Your task to perform on an android device: Open Reddit.com Image 0: 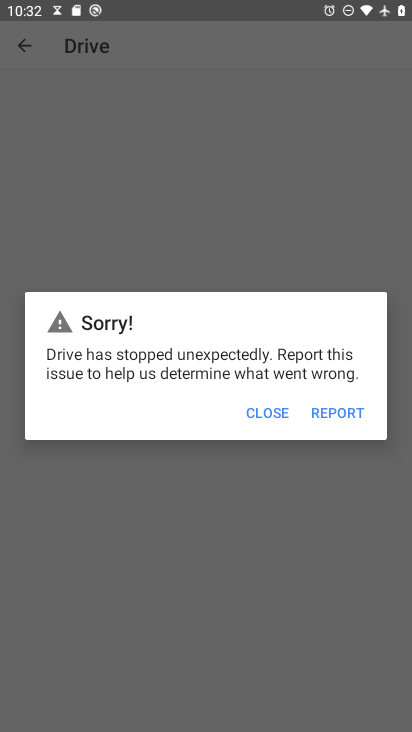
Step 0: press home button
Your task to perform on an android device: Open Reddit.com Image 1: 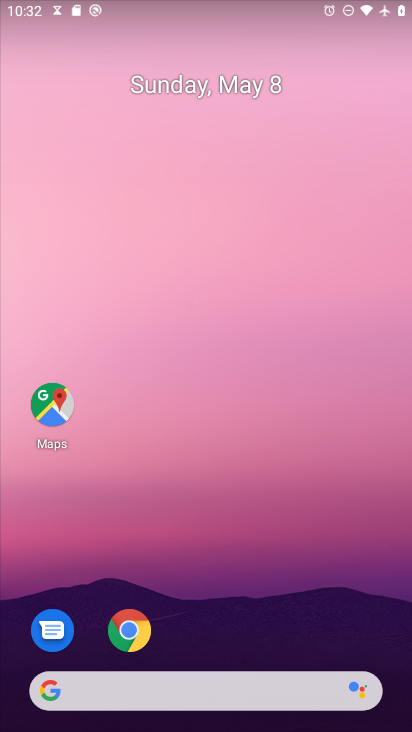
Step 1: click (134, 634)
Your task to perform on an android device: Open Reddit.com Image 2: 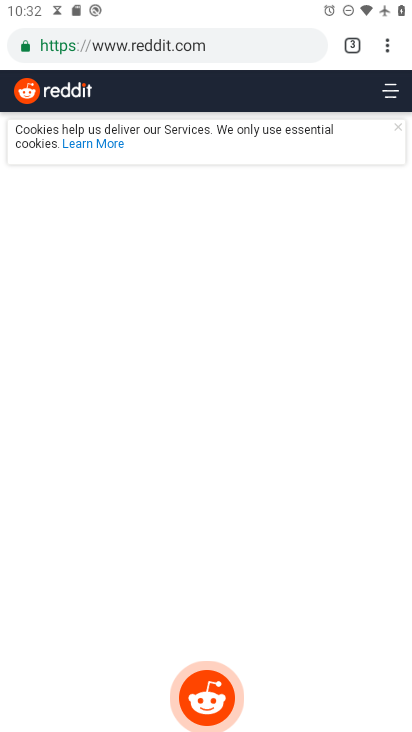
Step 2: task complete